Your task to perform on an android device: turn on translation in the chrome app Image 0: 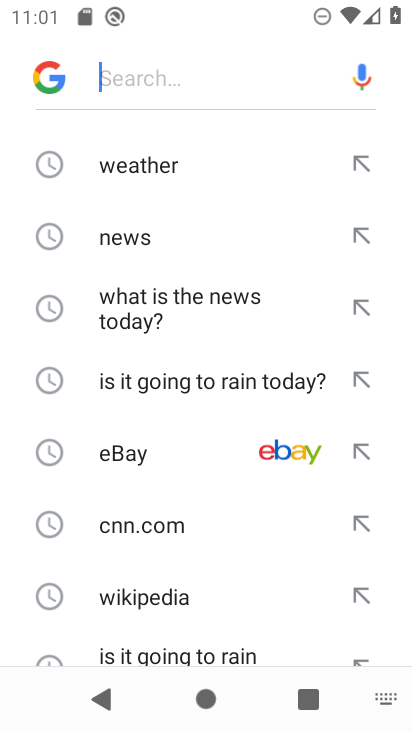
Step 0: press home button
Your task to perform on an android device: turn on translation in the chrome app Image 1: 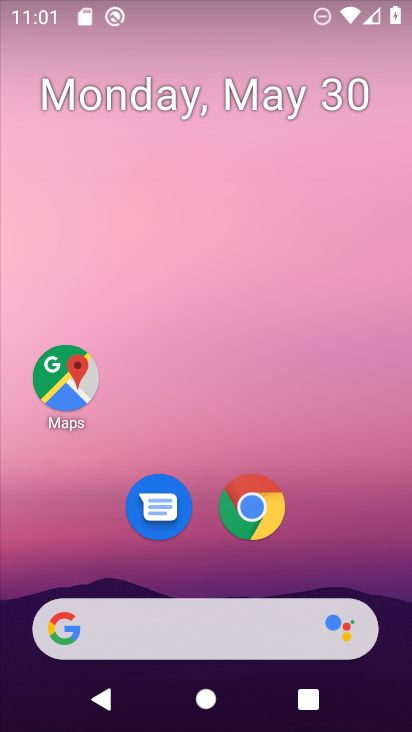
Step 1: drag from (386, 671) to (244, 11)
Your task to perform on an android device: turn on translation in the chrome app Image 2: 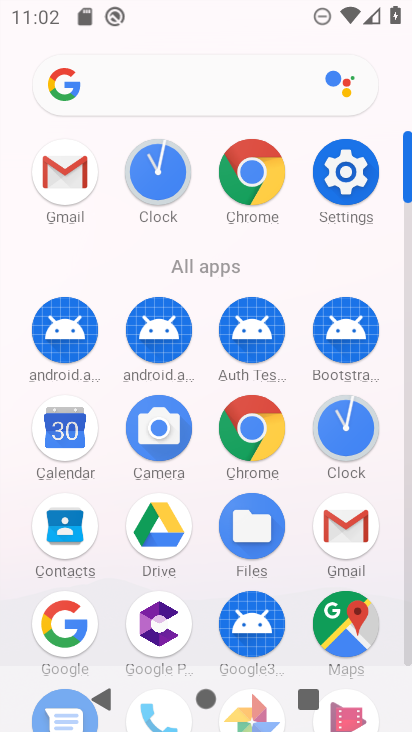
Step 2: click (254, 183)
Your task to perform on an android device: turn on translation in the chrome app Image 3: 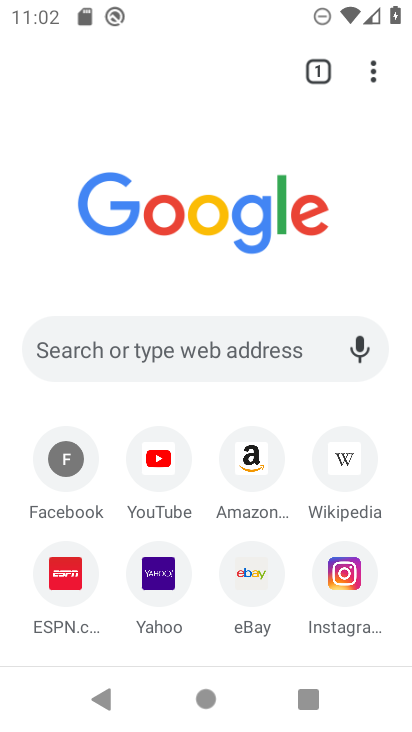
Step 3: click (378, 70)
Your task to perform on an android device: turn on translation in the chrome app Image 4: 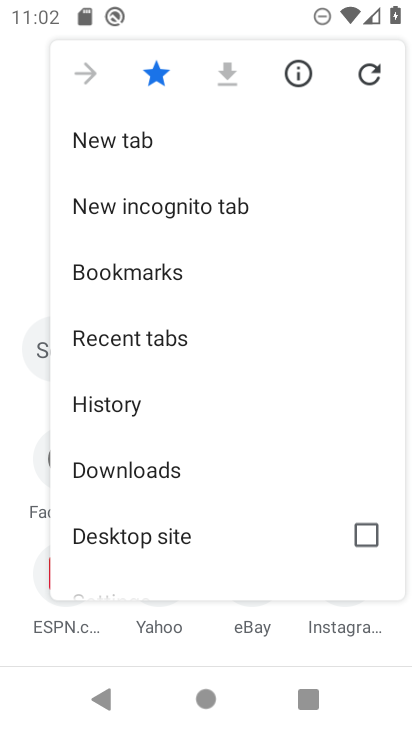
Step 4: drag from (146, 520) to (241, 119)
Your task to perform on an android device: turn on translation in the chrome app Image 5: 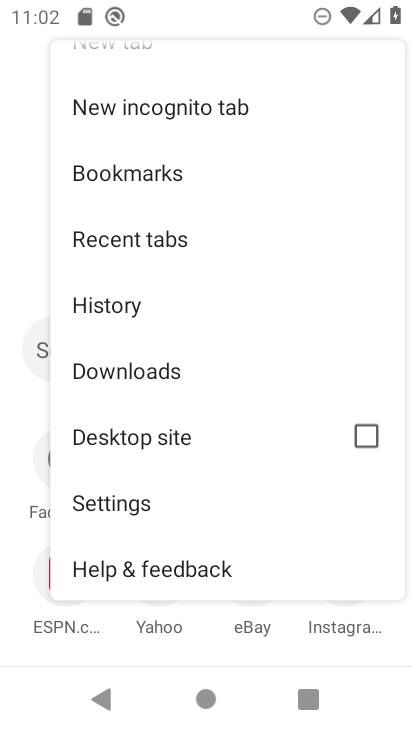
Step 5: click (143, 510)
Your task to perform on an android device: turn on translation in the chrome app Image 6: 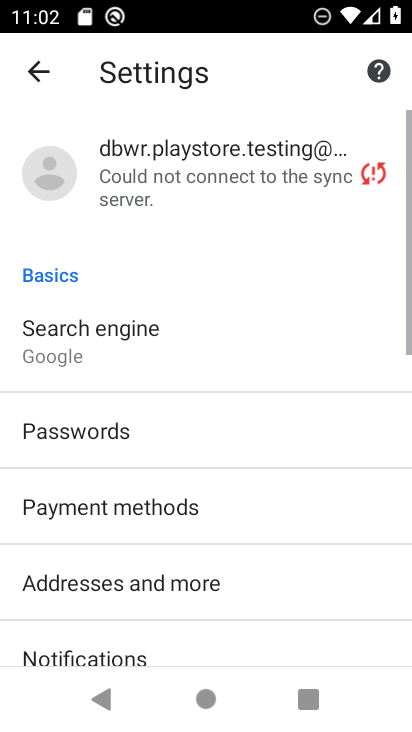
Step 6: drag from (186, 622) to (191, 136)
Your task to perform on an android device: turn on translation in the chrome app Image 7: 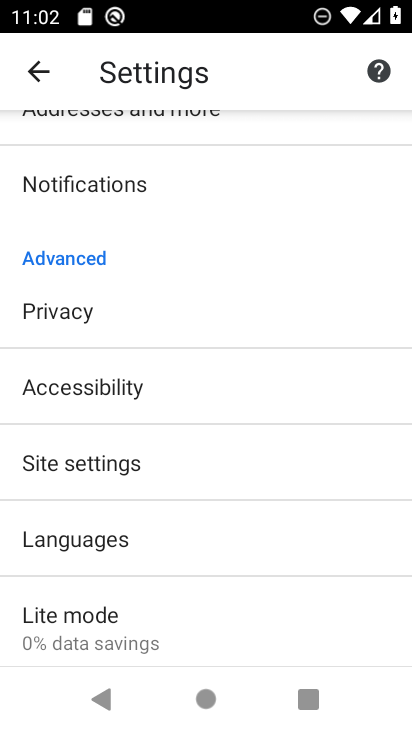
Step 7: click (175, 545)
Your task to perform on an android device: turn on translation in the chrome app Image 8: 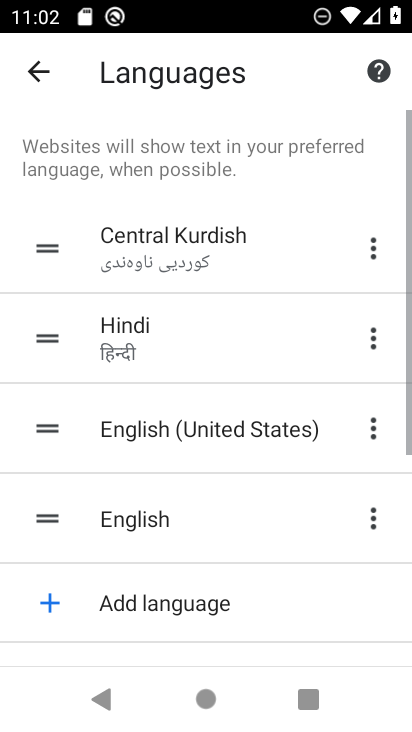
Step 8: drag from (232, 685) to (262, 112)
Your task to perform on an android device: turn on translation in the chrome app Image 9: 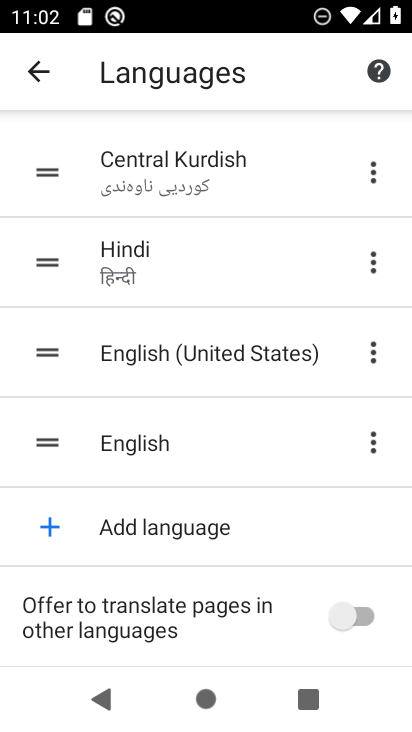
Step 9: click (309, 612)
Your task to perform on an android device: turn on translation in the chrome app Image 10: 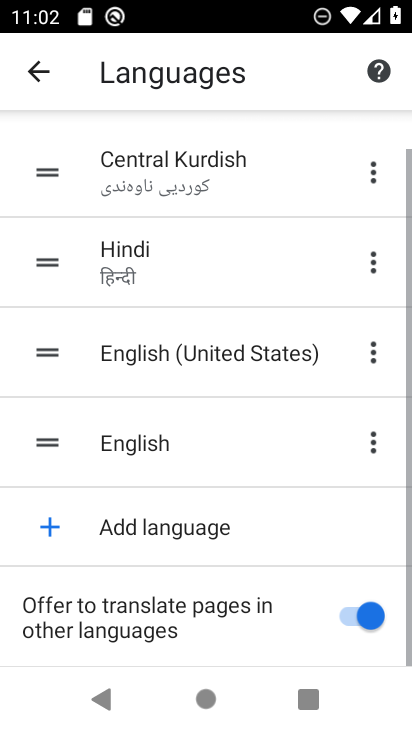
Step 10: task complete